Your task to perform on an android device: Open eBay Image 0: 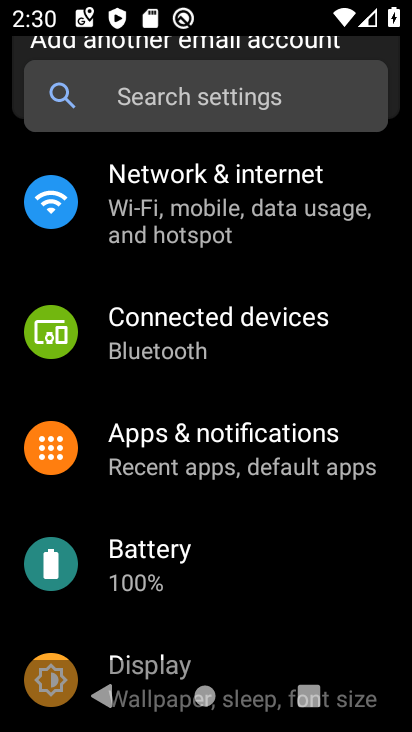
Step 0: press home button
Your task to perform on an android device: Open eBay Image 1: 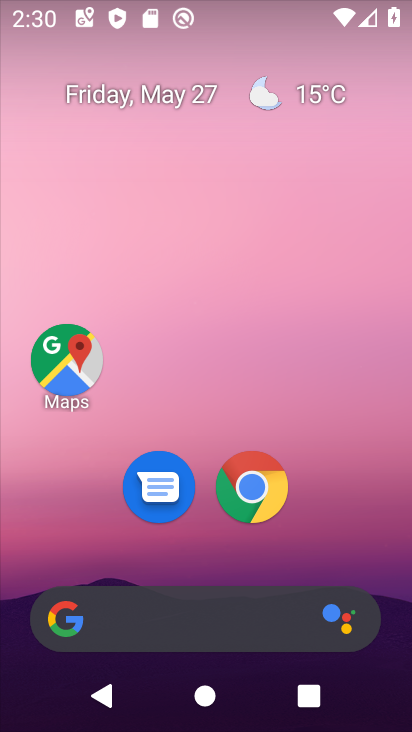
Step 1: click (209, 600)
Your task to perform on an android device: Open eBay Image 2: 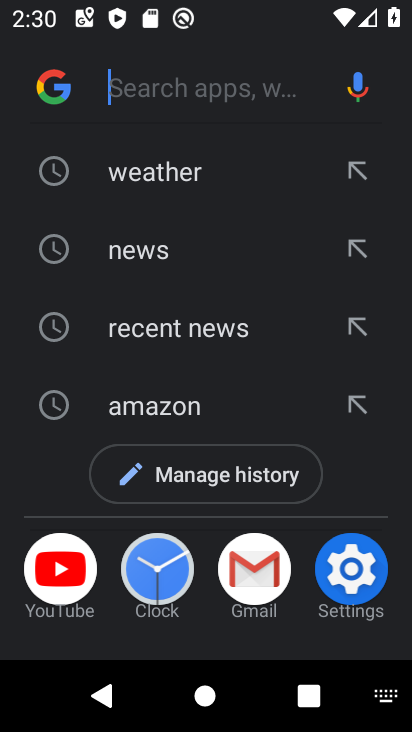
Step 2: type "dbay"
Your task to perform on an android device: Open eBay Image 3: 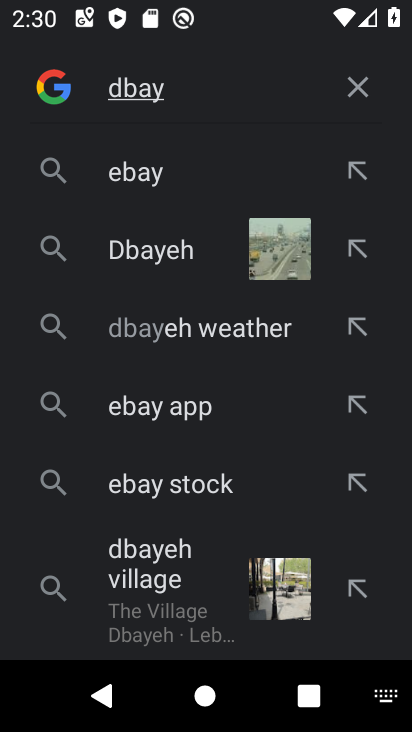
Step 3: click (160, 193)
Your task to perform on an android device: Open eBay Image 4: 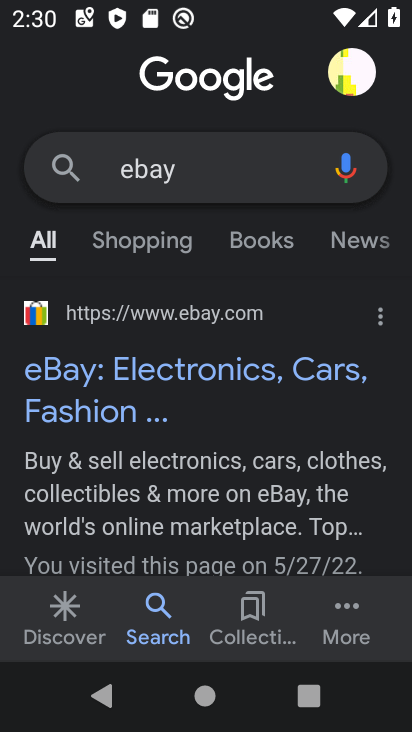
Step 4: click (113, 338)
Your task to perform on an android device: Open eBay Image 5: 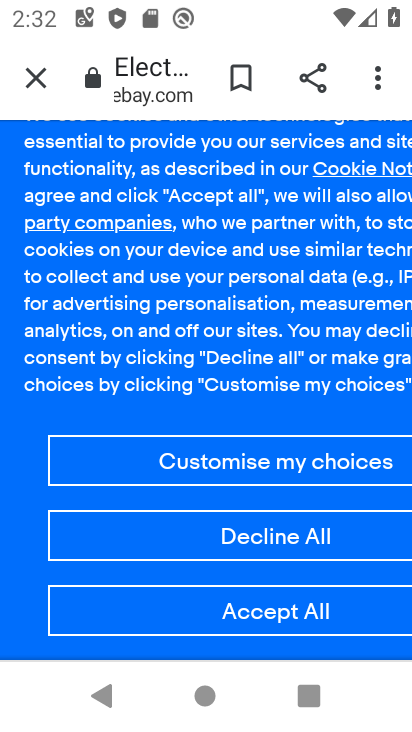
Step 5: task complete